Your task to perform on an android device: turn on improve location accuracy Image 0: 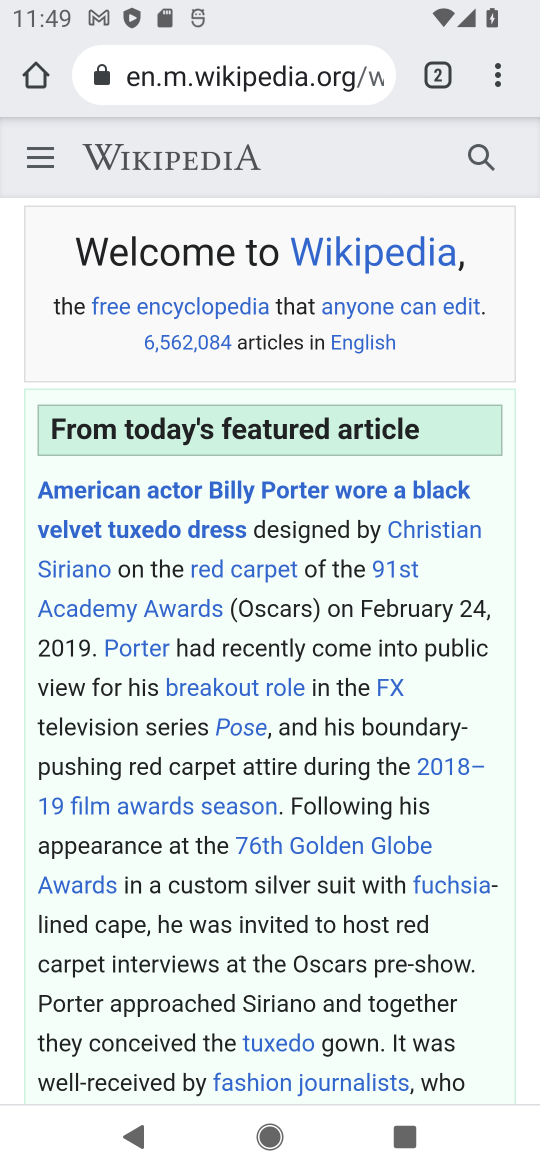
Step 0: press back button
Your task to perform on an android device: turn on improve location accuracy Image 1: 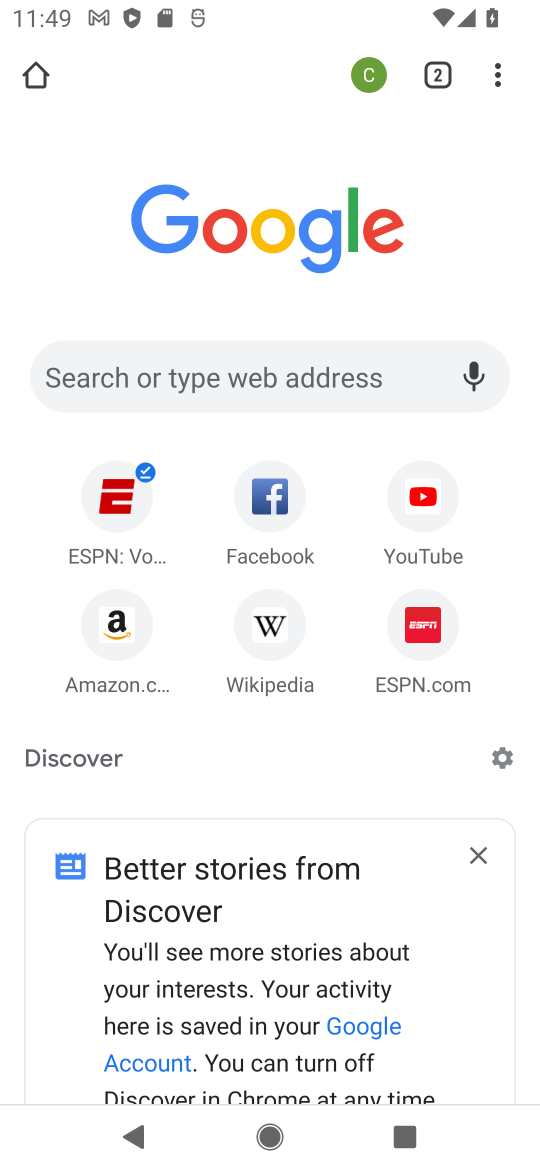
Step 1: press back button
Your task to perform on an android device: turn on improve location accuracy Image 2: 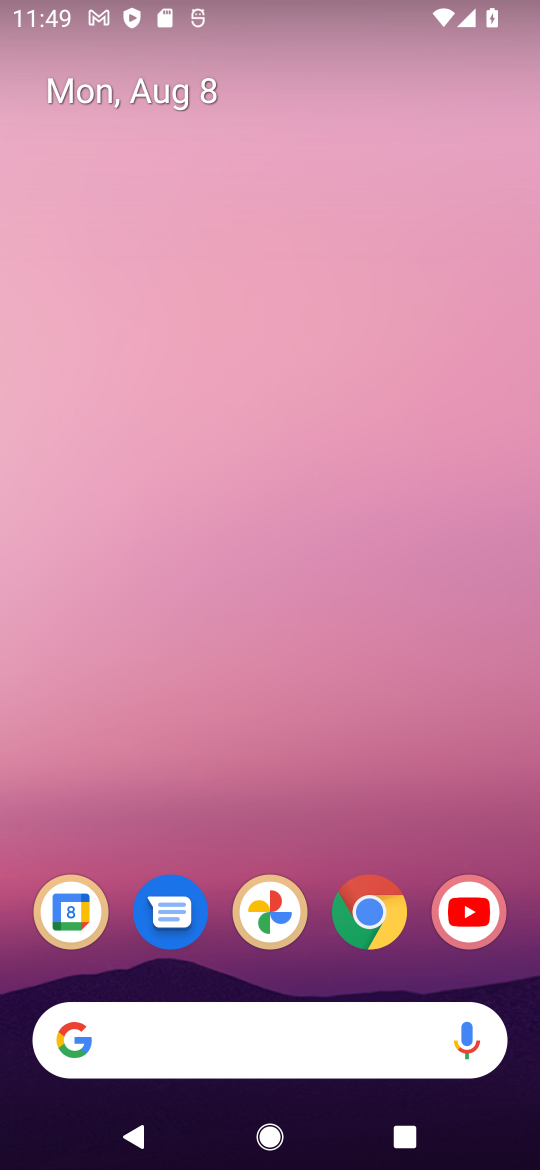
Step 2: drag from (219, 946) to (435, 38)
Your task to perform on an android device: turn on improve location accuracy Image 3: 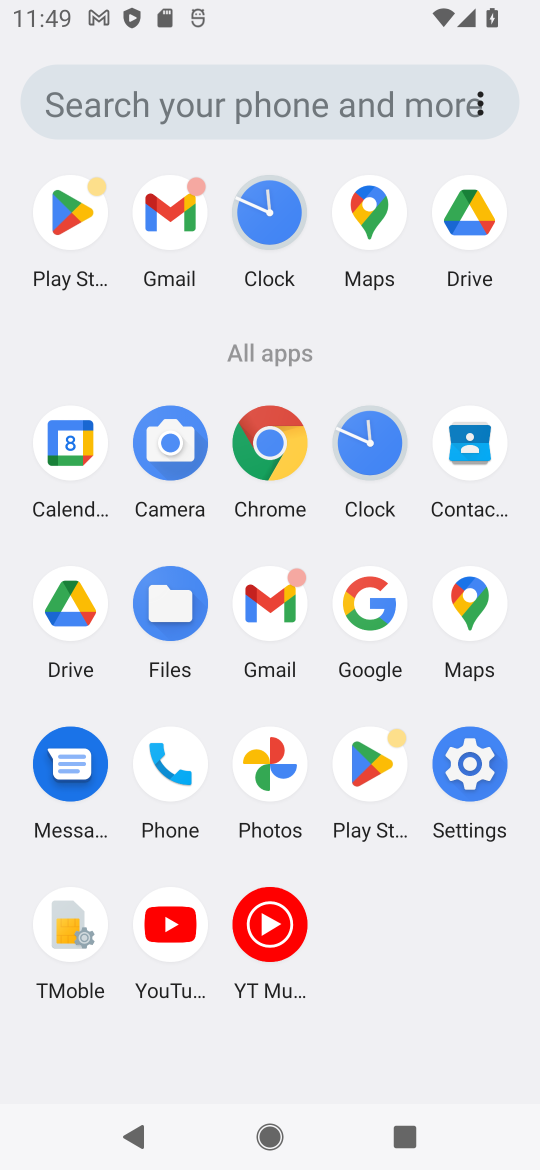
Step 3: click (464, 782)
Your task to perform on an android device: turn on improve location accuracy Image 4: 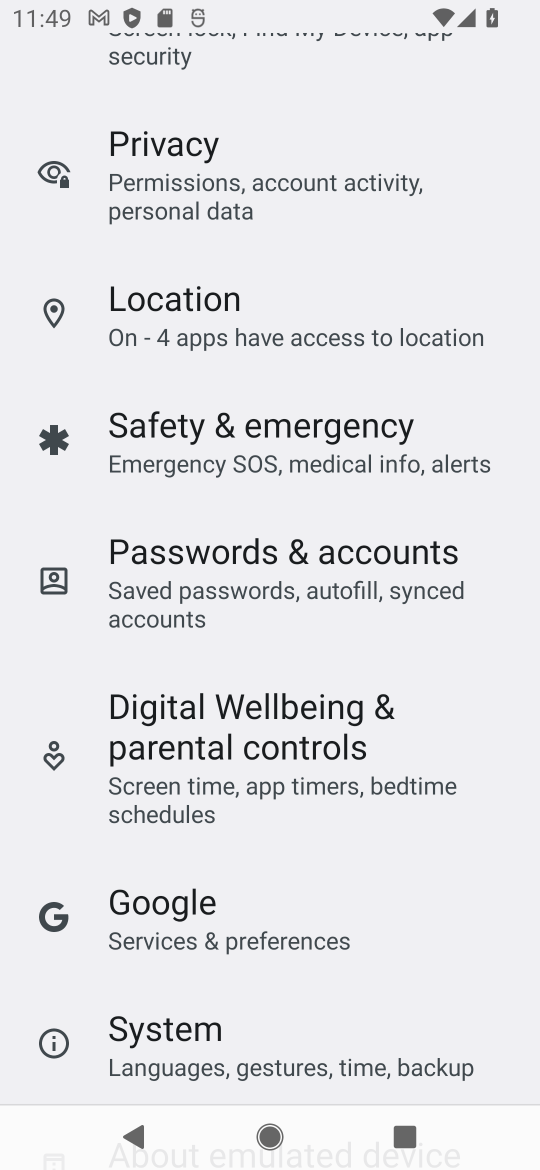
Step 4: click (221, 323)
Your task to perform on an android device: turn on improve location accuracy Image 5: 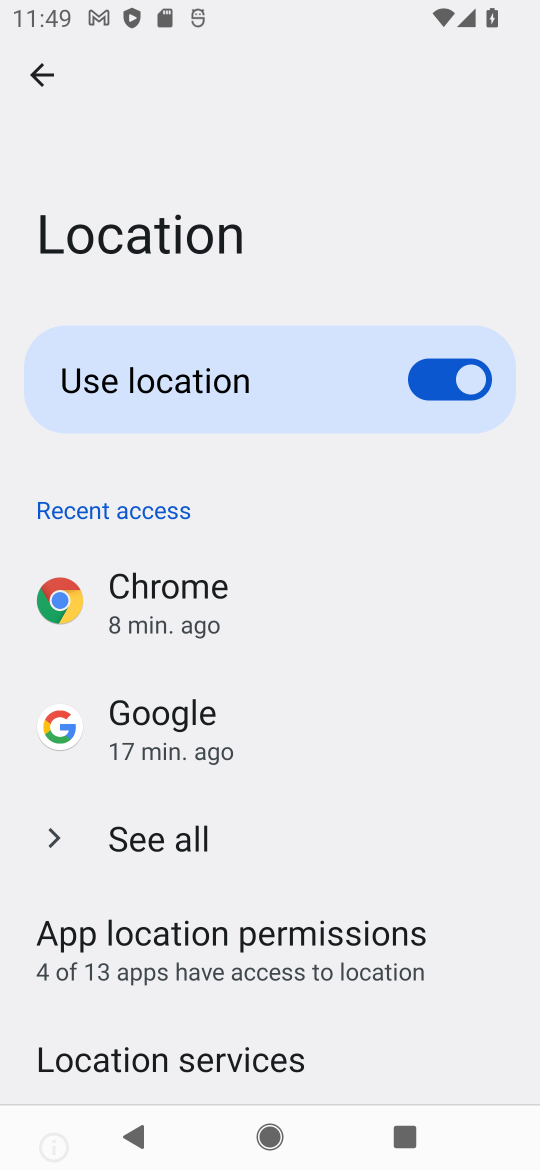
Step 5: drag from (197, 1003) to (366, 366)
Your task to perform on an android device: turn on improve location accuracy Image 6: 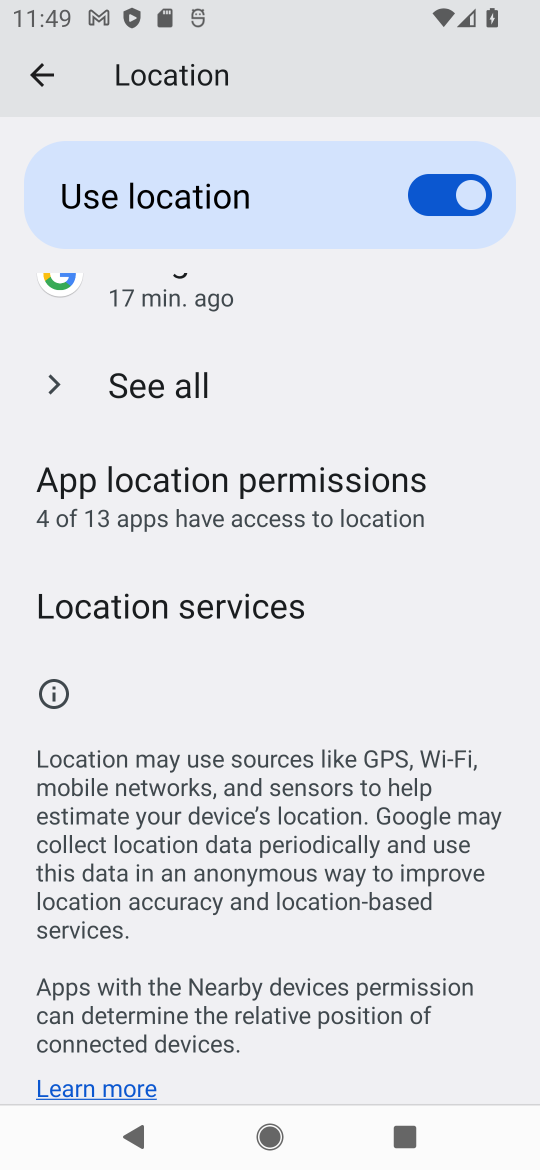
Step 6: click (236, 598)
Your task to perform on an android device: turn on improve location accuracy Image 7: 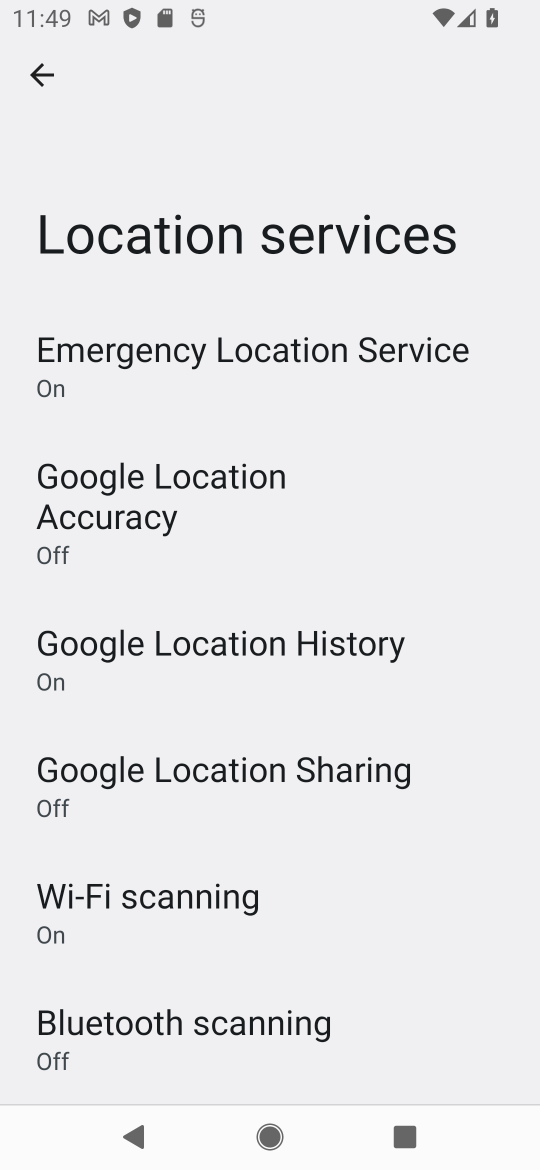
Step 7: click (197, 493)
Your task to perform on an android device: turn on improve location accuracy Image 8: 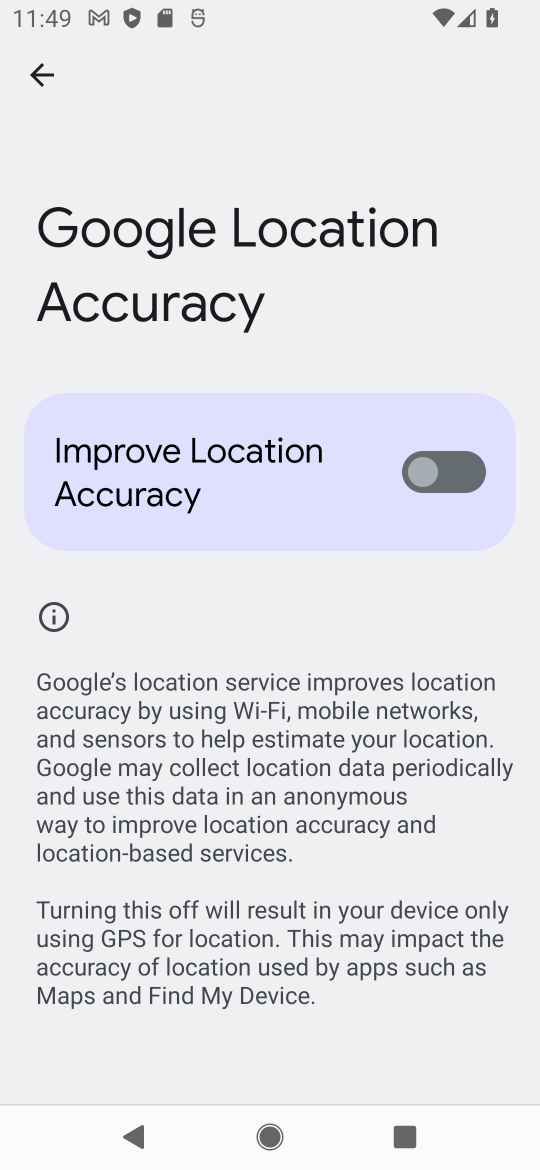
Step 8: click (432, 464)
Your task to perform on an android device: turn on improve location accuracy Image 9: 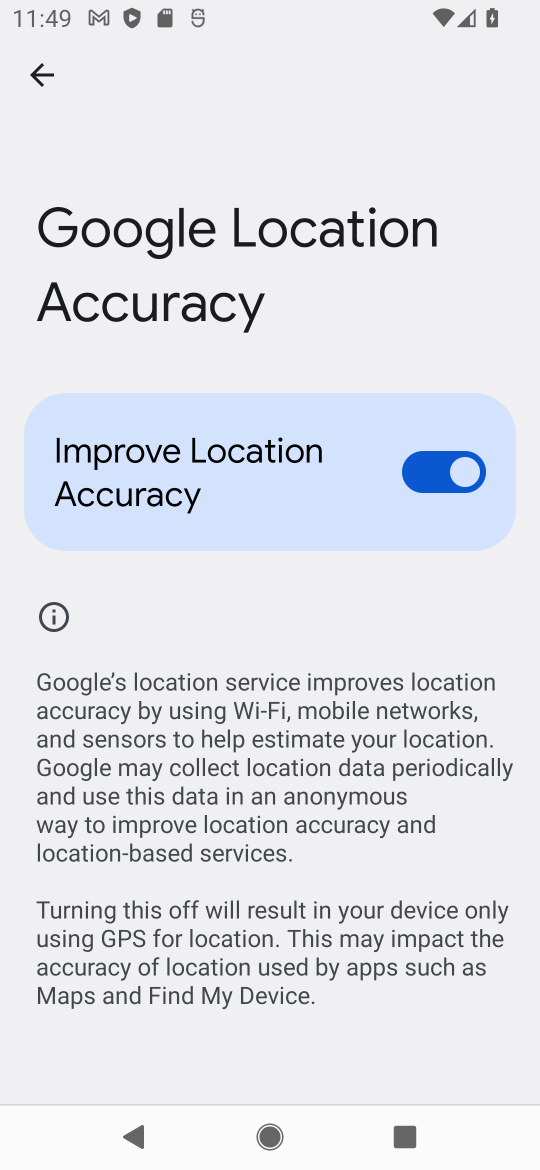
Step 9: task complete